Your task to perform on an android device: toggle location history Image 0: 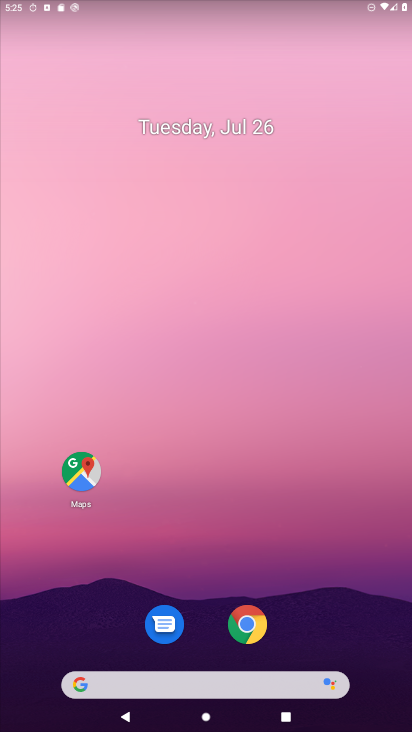
Step 0: drag from (217, 689) to (271, 4)
Your task to perform on an android device: toggle location history Image 1: 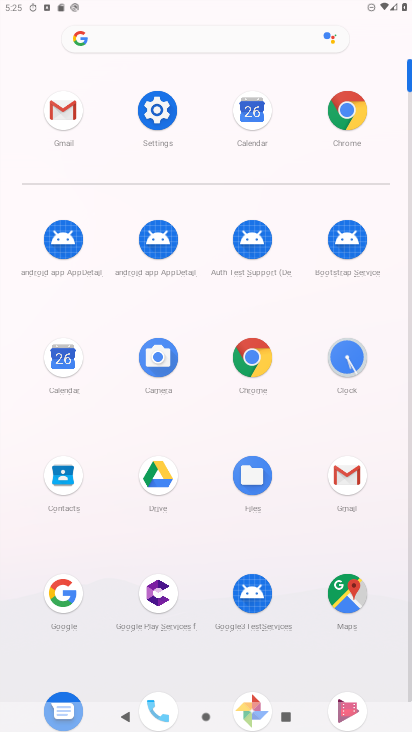
Step 1: click (155, 111)
Your task to perform on an android device: toggle location history Image 2: 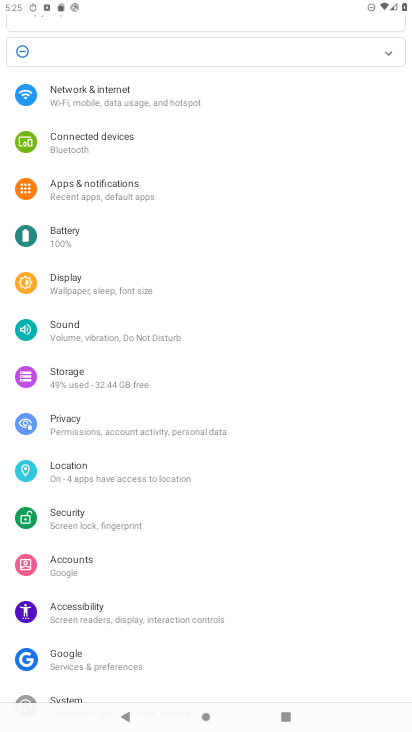
Step 2: click (127, 483)
Your task to perform on an android device: toggle location history Image 3: 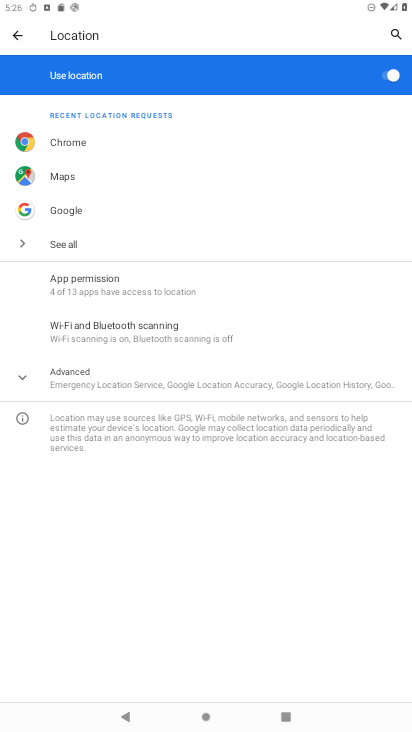
Step 3: click (105, 393)
Your task to perform on an android device: toggle location history Image 4: 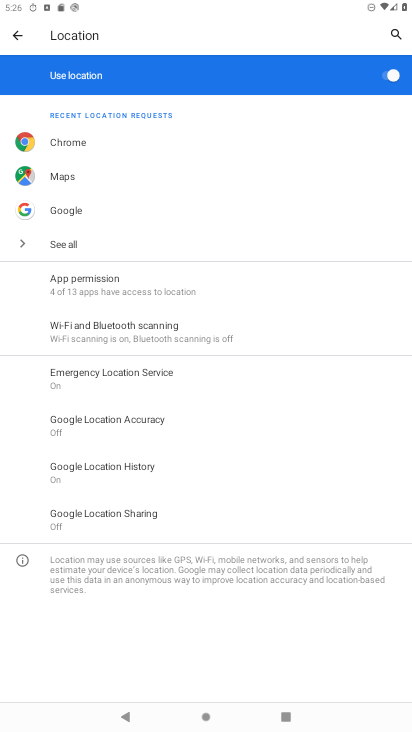
Step 4: click (121, 477)
Your task to perform on an android device: toggle location history Image 5: 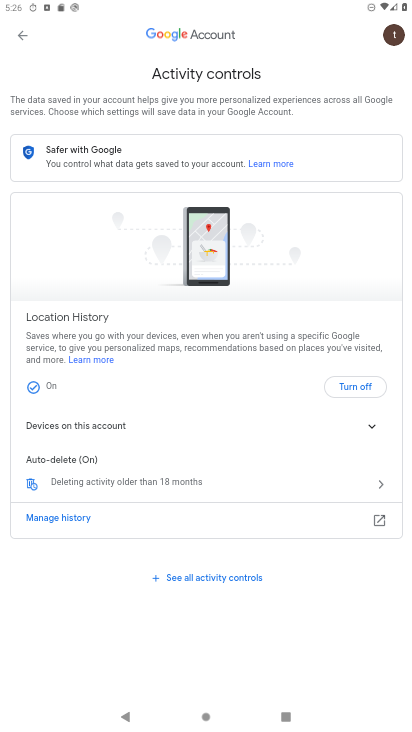
Step 5: click (360, 386)
Your task to perform on an android device: toggle location history Image 6: 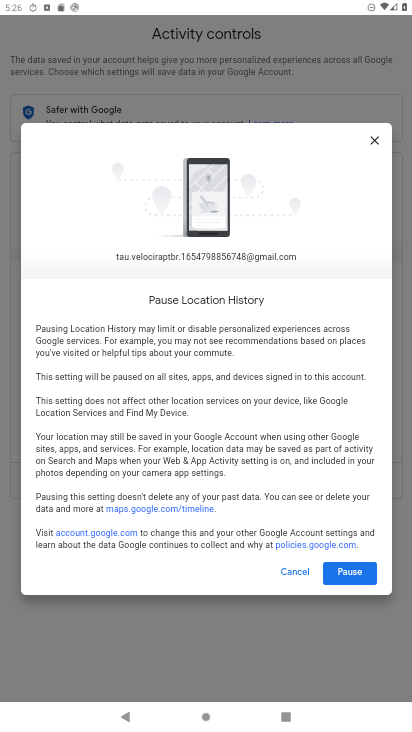
Step 6: click (335, 573)
Your task to perform on an android device: toggle location history Image 7: 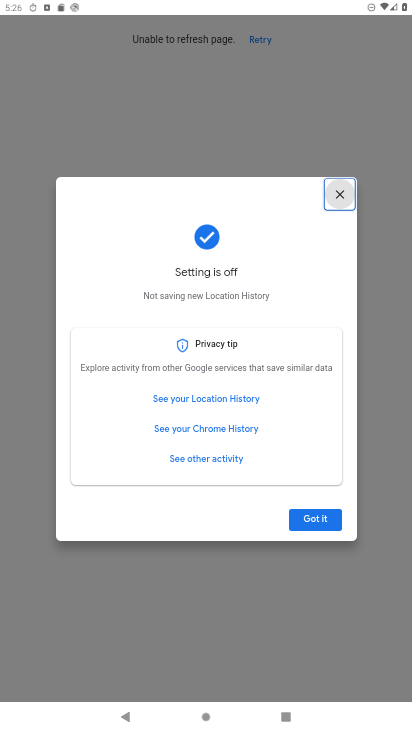
Step 7: task complete